Your task to perform on an android device: turn off improve location accuracy Image 0: 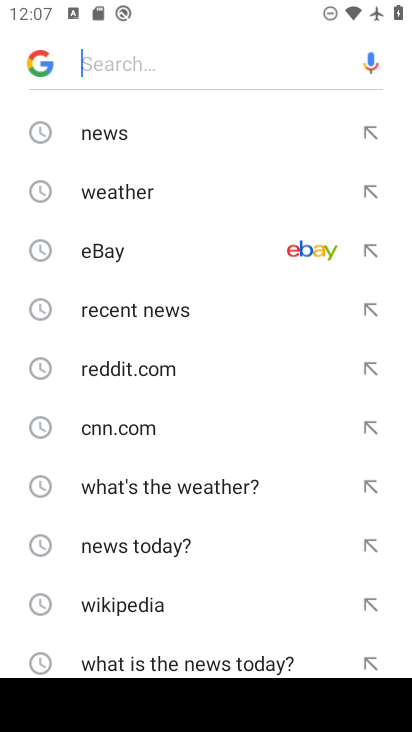
Step 0: press home button
Your task to perform on an android device: turn off improve location accuracy Image 1: 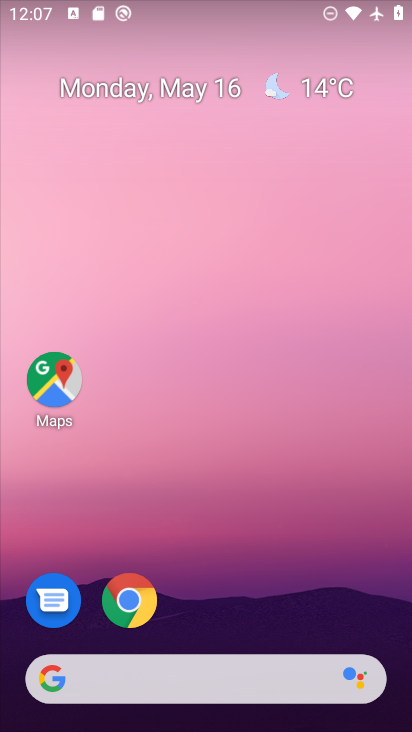
Step 1: drag from (385, 622) to (284, 180)
Your task to perform on an android device: turn off improve location accuracy Image 2: 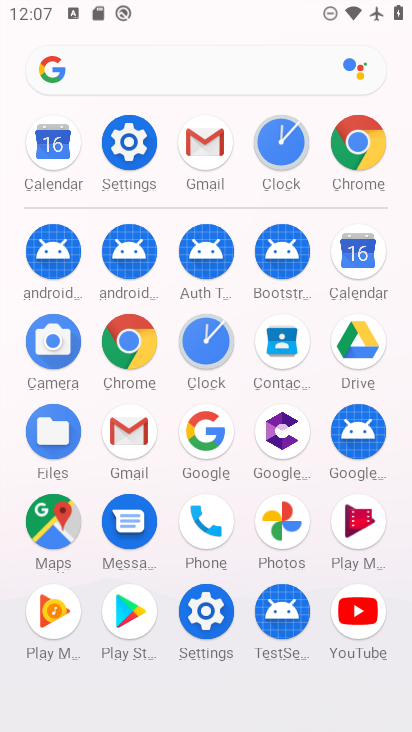
Step 2: click (205, 611)
Your task to perform on an android device: turn off improve location accuracy Image 3: 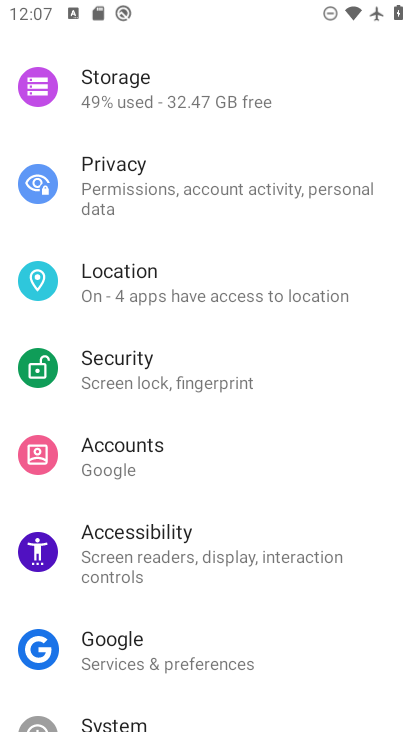
Step 3: click (123, 273)
Your task to perform on an android device: turn off improve location accuracy Image 4: 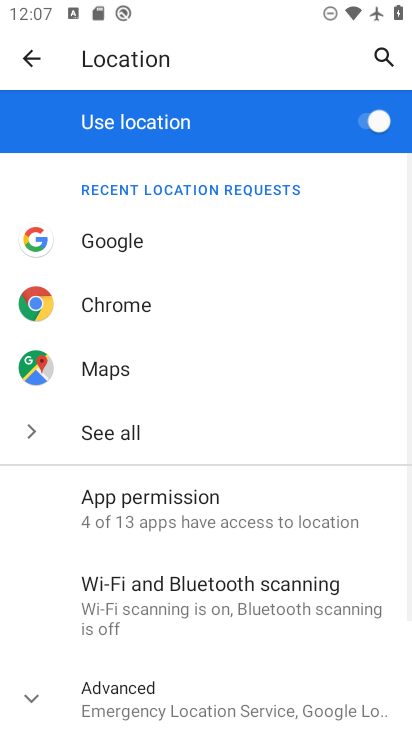
Step 4: drag from (297, 664) to (290, 362)
Your task to perform on an android device: turn off improve location accuracy Image 5: 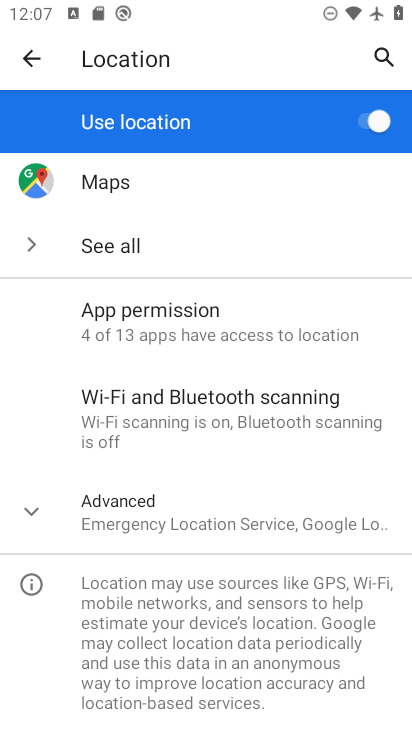
Step 5: click (27, 512)
Your task to perform on an android device: turn off improve location accuracy Image 6: 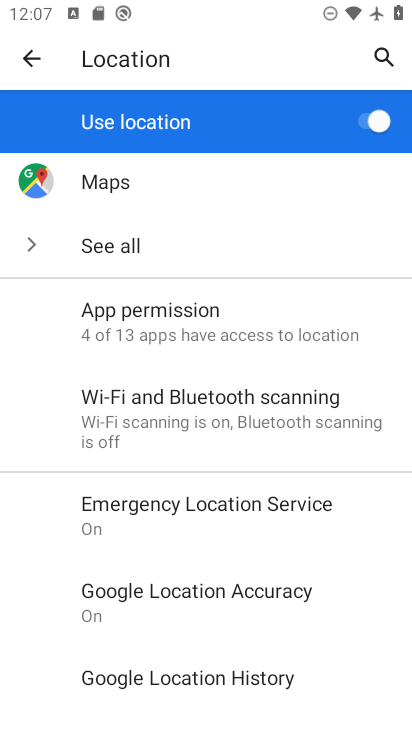
Step 6: drag from (328, 668) to (302, 328)
Your task to perform on an android device: turn off improve location accuracy Image 7: 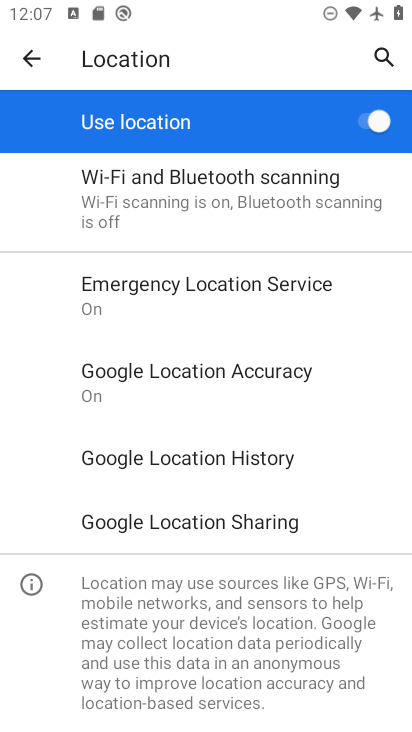
Step 7: click (162, 375)
Your task to perform on an android device: turn off improve location accuracy Image 8: 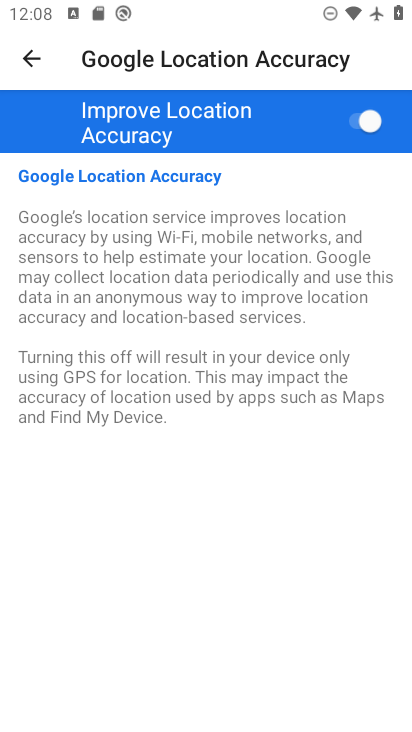
Step 8: click (353, 120)
Your task to perform on an android device: turn off improve location accuracy Image 9: 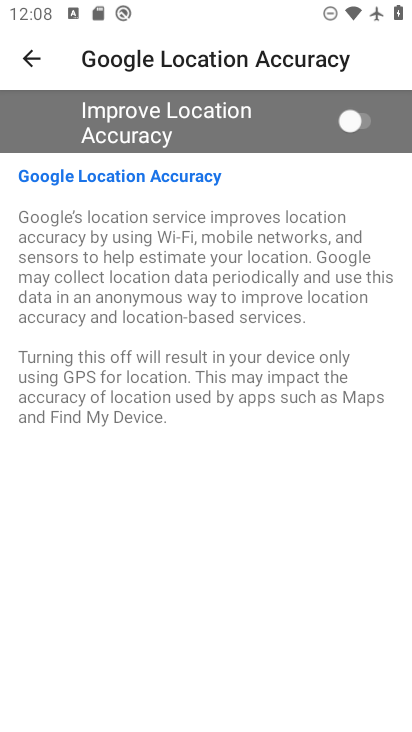
Step 9: task complete